Your task to perform on an android device: open chrome and create a bookmark for the current page Image 0: 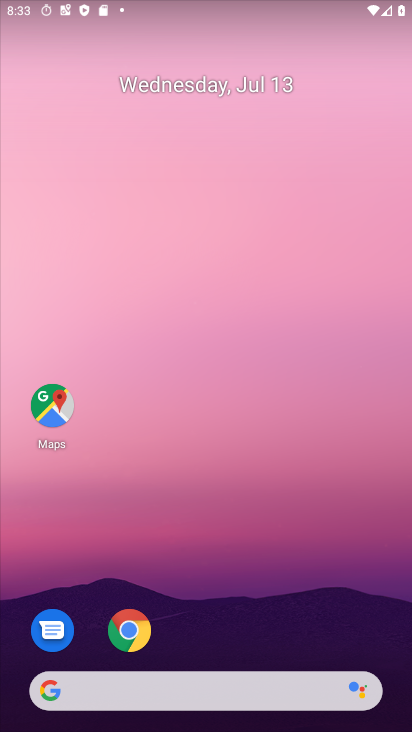
Step 0: drag from (208, 609) to (219, 236)
Your task to perform on an android device: open chrome and create a bookmark for the current page Image 1: 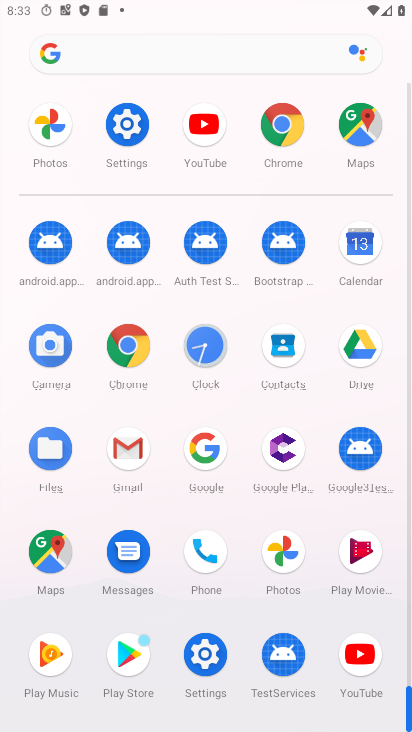
Step 1: click (127, 334)
Your task to perform on an android device: open chrome and create a bookmark for the current page Image 2: 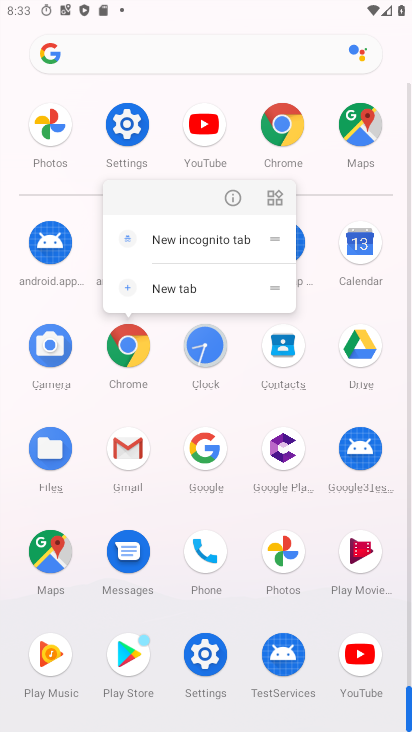
Step 2: click (232, 203)
Your task to perform on an android device: open chrome and create a bookmark for the current page Image 3: 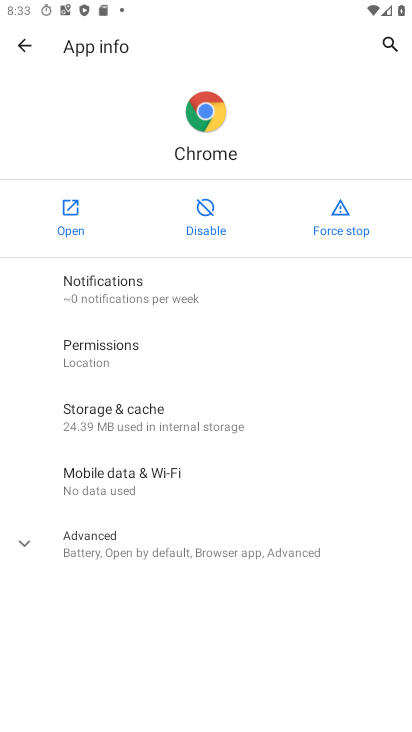
Step 3: click (60, 221)
Your task to perform on an android device: open chrome and create a bookmark for the current page Image 4: 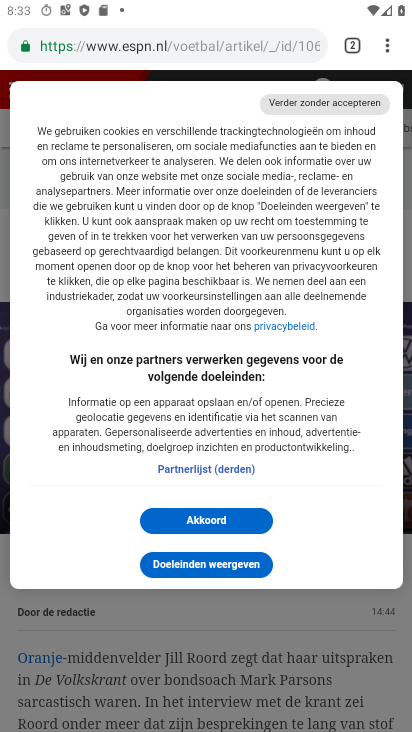
Step 4: task complete